Your task to perform on an android device: turn on translation in the chrome app Image 0: 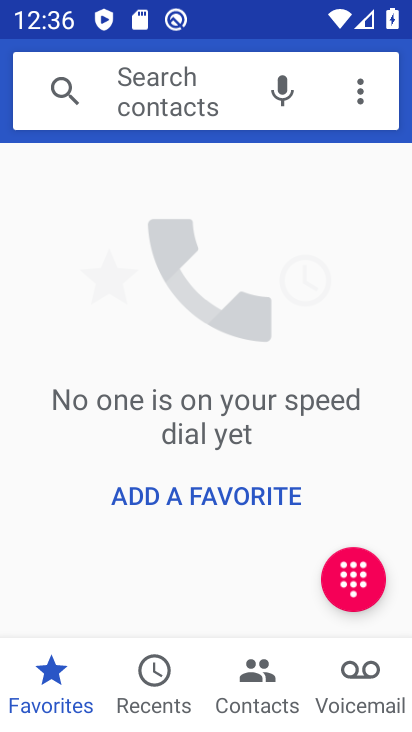
Step 0: press home button
Your task to perform on an android device: turn on translation in the chrome app Image 1: 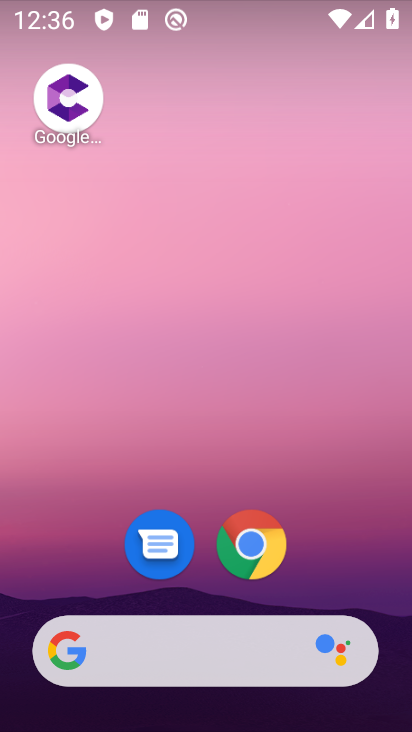
Step 1: click (255, 542)
Your task to perform on an android device: turn on translation in the chrome app Image 2: 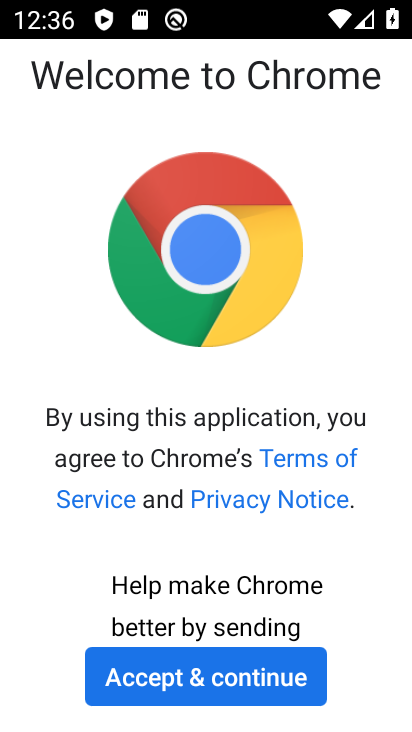
Step 2: click (200, 681)
Your task to perform on an android device: turn on translation in the chrome app Image 3: 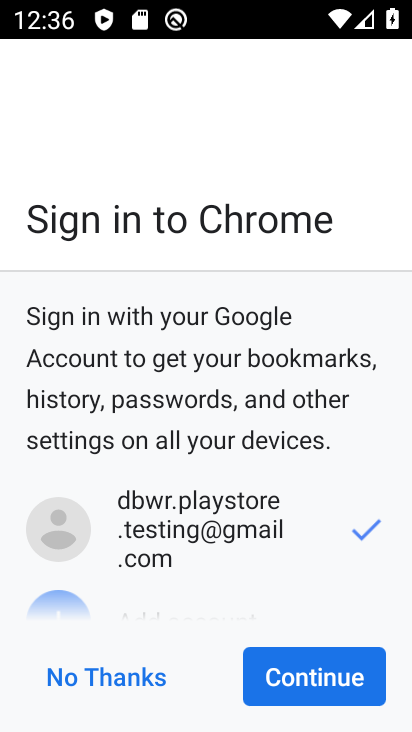
Step 3: click (315, 677)
Your task to perform on an android device: turn on translation in the chrome app Image 4: 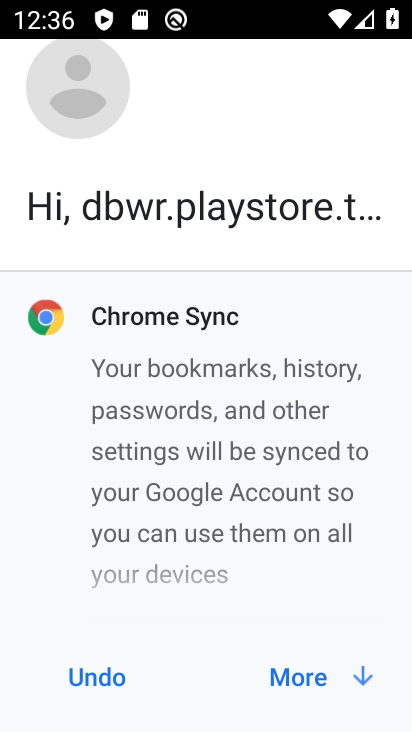
Step 4: click (315, 677)
Your task to perform on an android device: turn on translation in the chrome app Image 5: 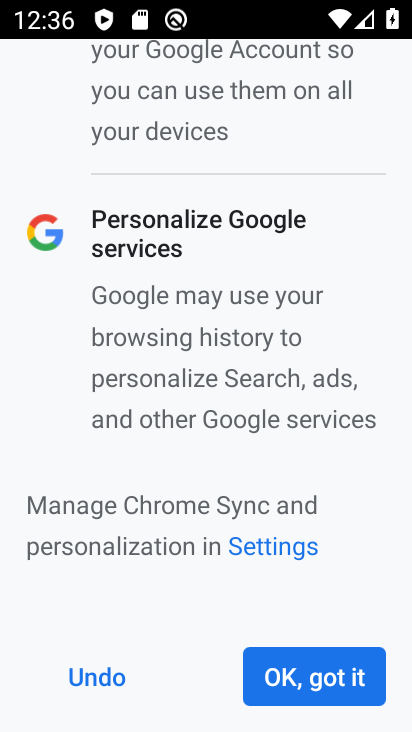
Step 5: click (315, 677)
Your task to perform on an android device: turn on translation in the chrome app Image 6: 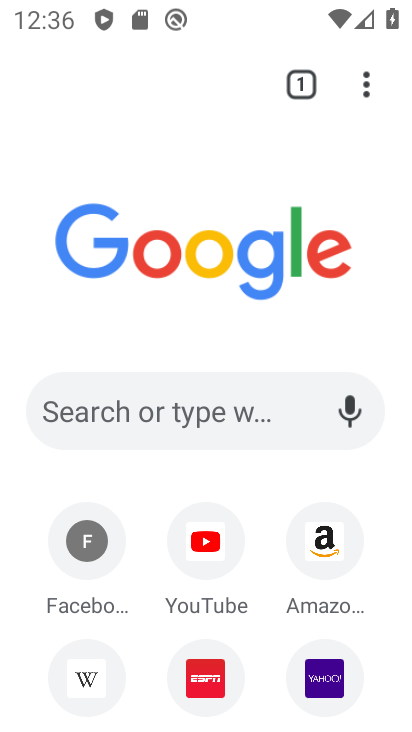
Step 6: click (365, 94)
Your task to perform on an android device: turn on translation in the chrome app Image 7: 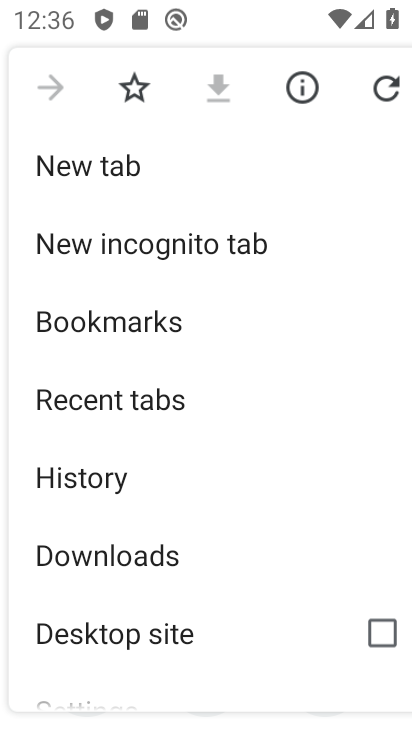
Step 7: drag from (243, 644) to (269, 273)
Your task to perform on an android device: turn on translation in the chrome app Image 8: 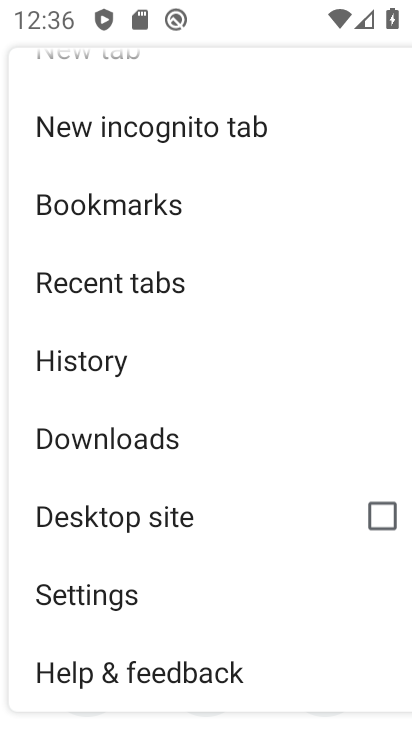
Step 8: click (77, 601)
Your task to perform on an android device: turn on translation in the chrome app Image 9: 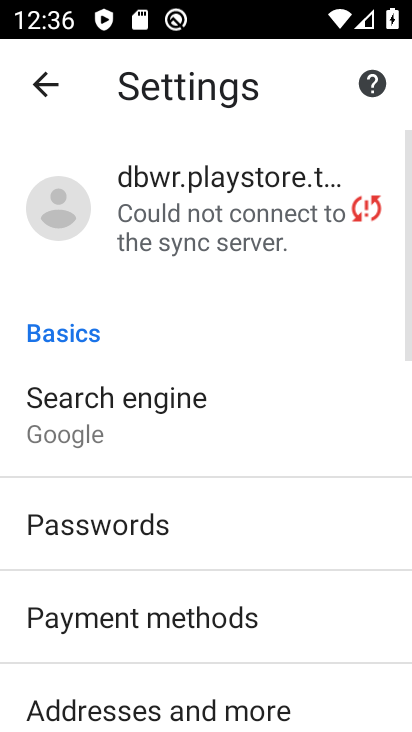
Step 9: drag from (328, 692) to (280, 267)
Your task to perform on an android device: turn on translation in the chrome app Image 10: 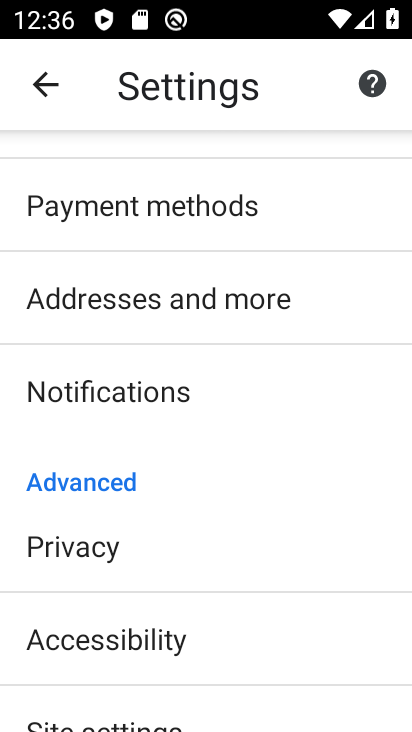
Step 10: drag from (285, 373) to (300, 260)
Your task to perform on an android device: turn on translation in the chrome app Image 11: 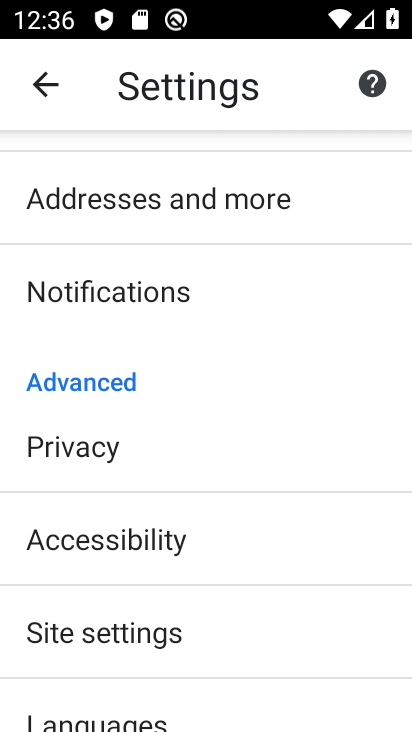
Step 11: drag from (244, 663) to (257, 235)
Your task to perform on an android device: turn on translation in the chrome app Image 12: 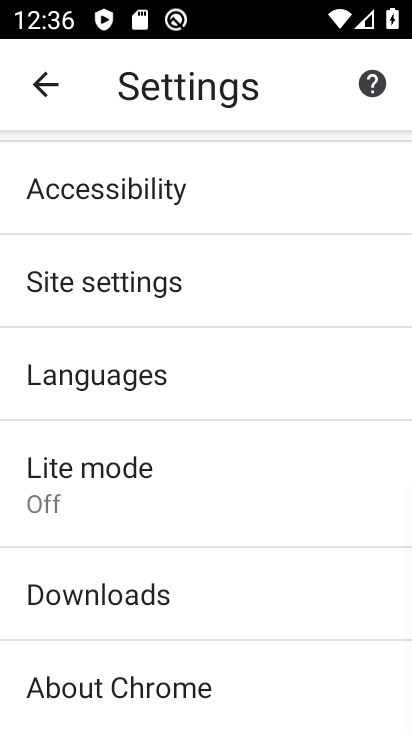
Step 12: click (60, 395)
Your task to perform on an android device: turn on translation in the chrome app Image 13: 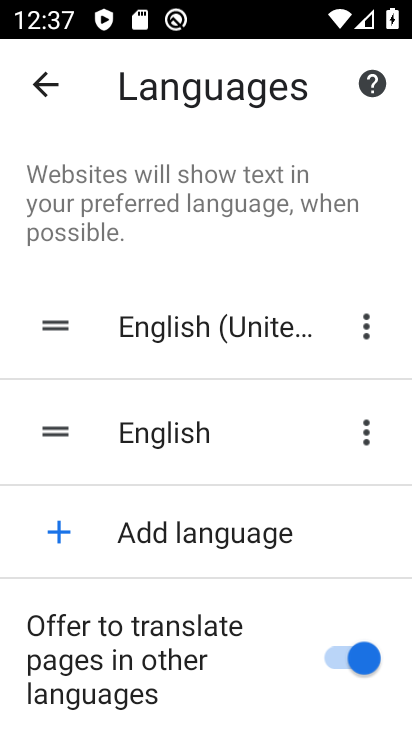
Step 13: task complete